Your task to perform on an android device: turn on the 12-hour format for clock Image 0: 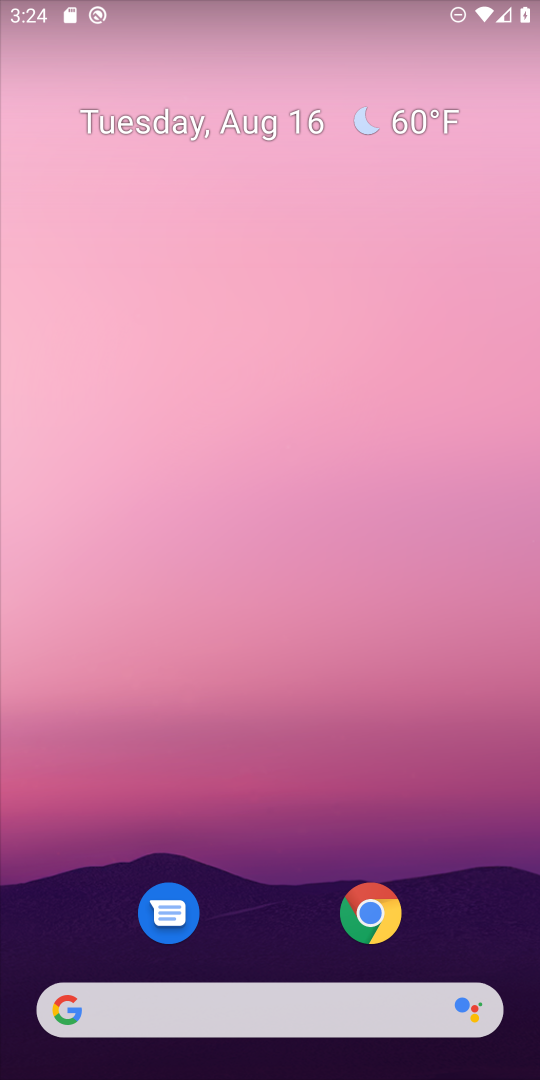
Step 0: drag from (486, 917) to (462, 269)
Your task to perform on an android device: turn on the 12-hour format for clock Image 1: 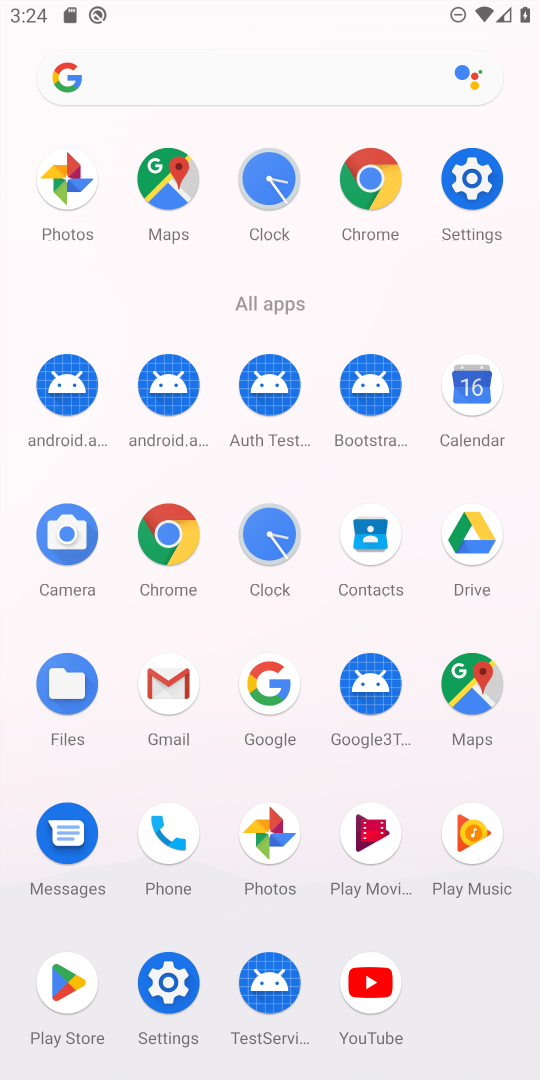
Step 1: click (168, 984)
Your task to perform on an android device: turn on the 12-hour format for clock Image 2: 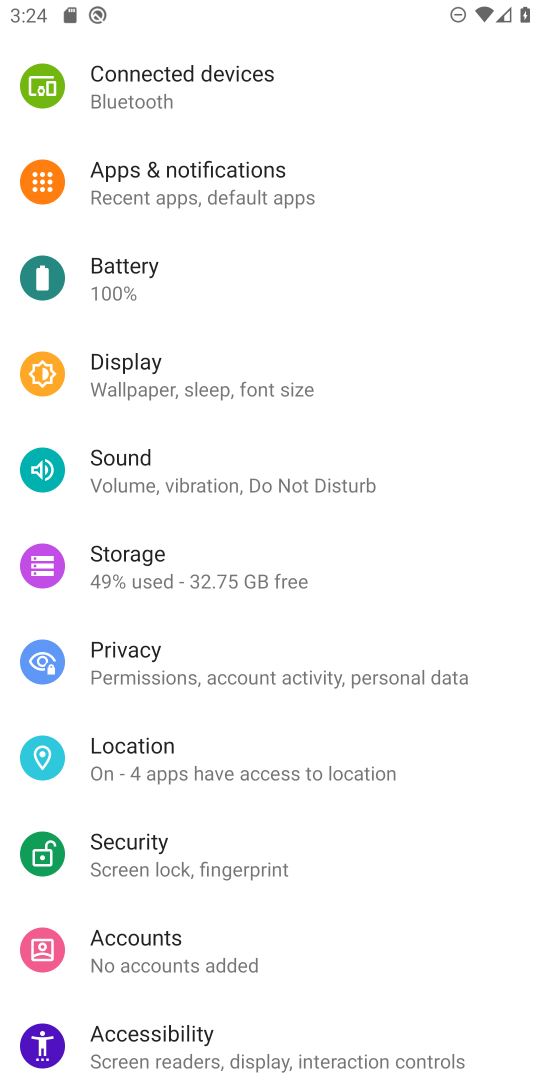
Step 2: press home button
Your task to perform on an android device: turn on the 12-hour format for clock Image 3: 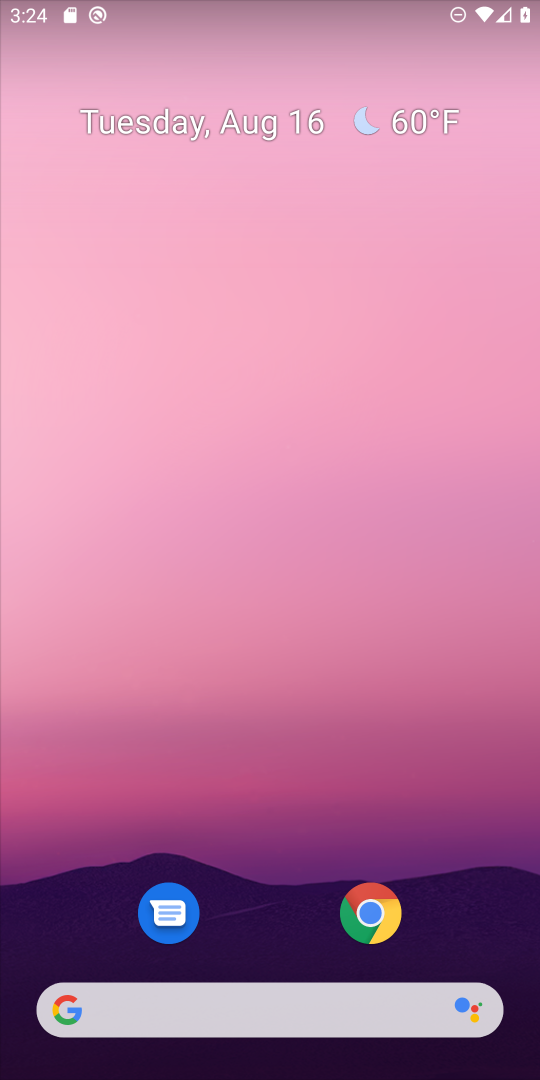
Step 3: drag from (476, 938) to (437, 149)
Your task to perform on an android device: turn on the 12-hour format for clock Image 4: 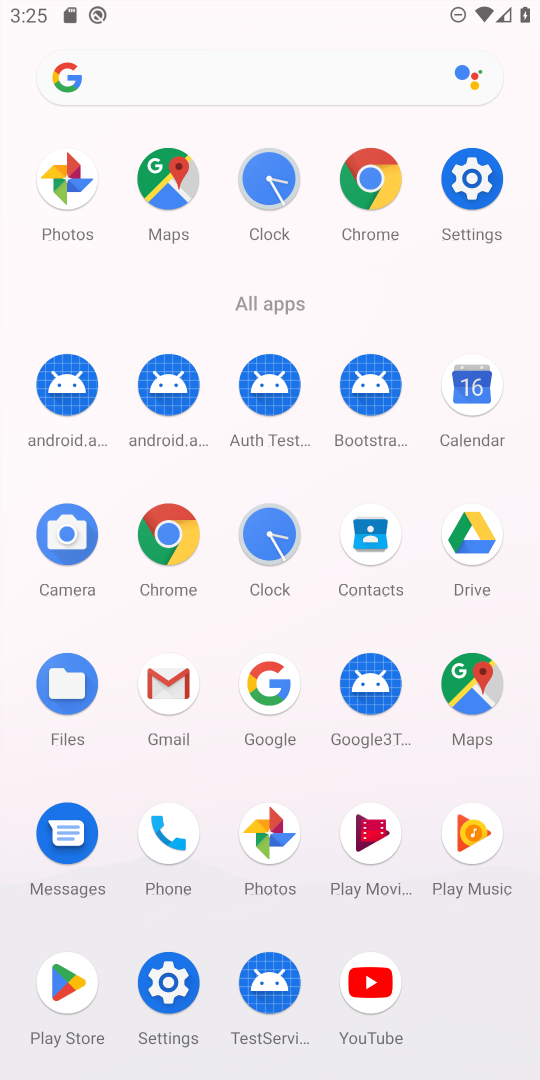
Step 4: click (268, 537)
Your task to perform on an android device: turn on the 12-hour format for clock Image 5: 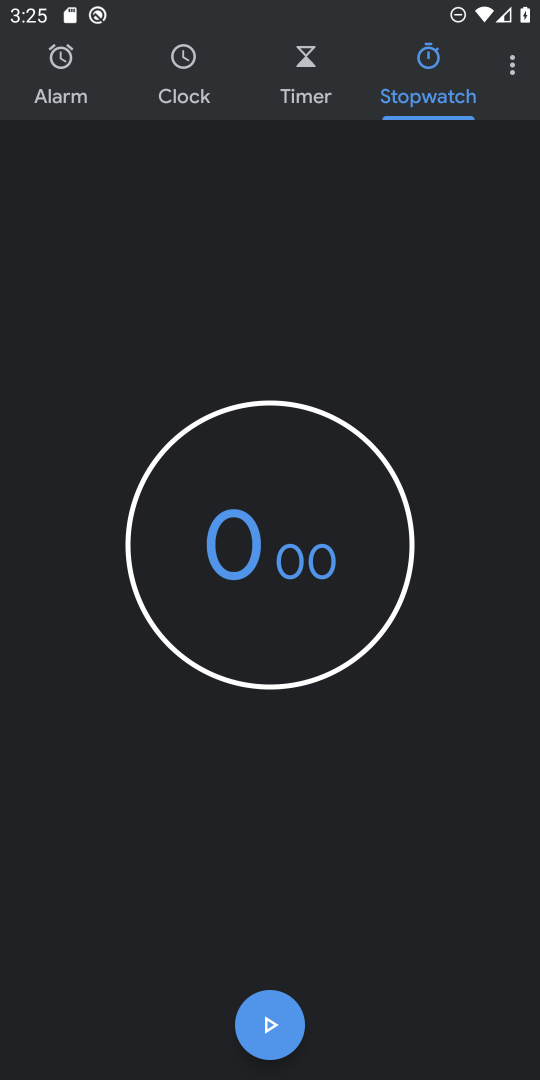
Step 5: click (510, 72)
Your task to perform on an android device: turn on the 12-hour format for clock Image 6: 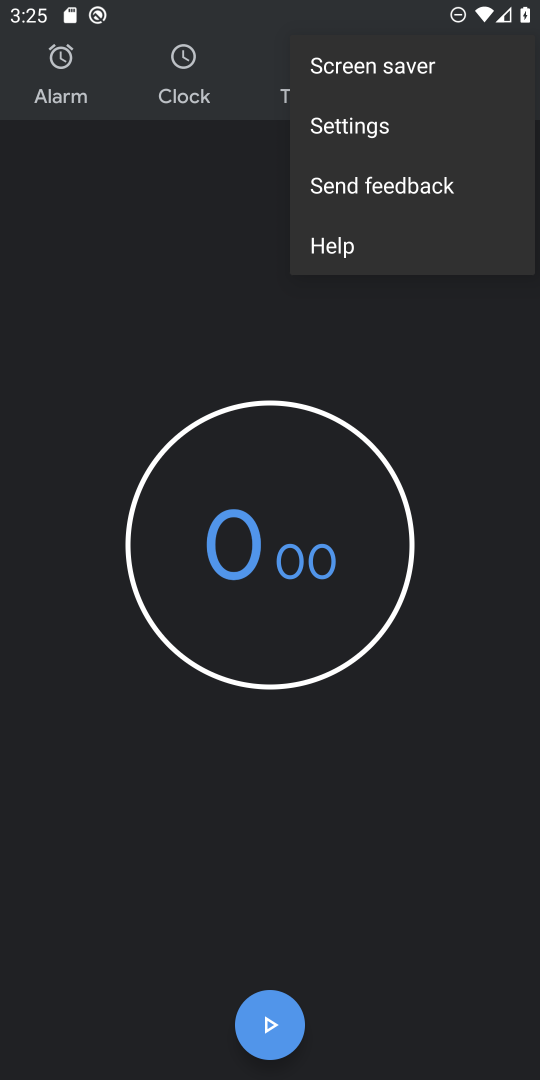
Step 6: click (345, 117)
Your task to perform on an android device: turn on the 12-hour format for clock Image 7: 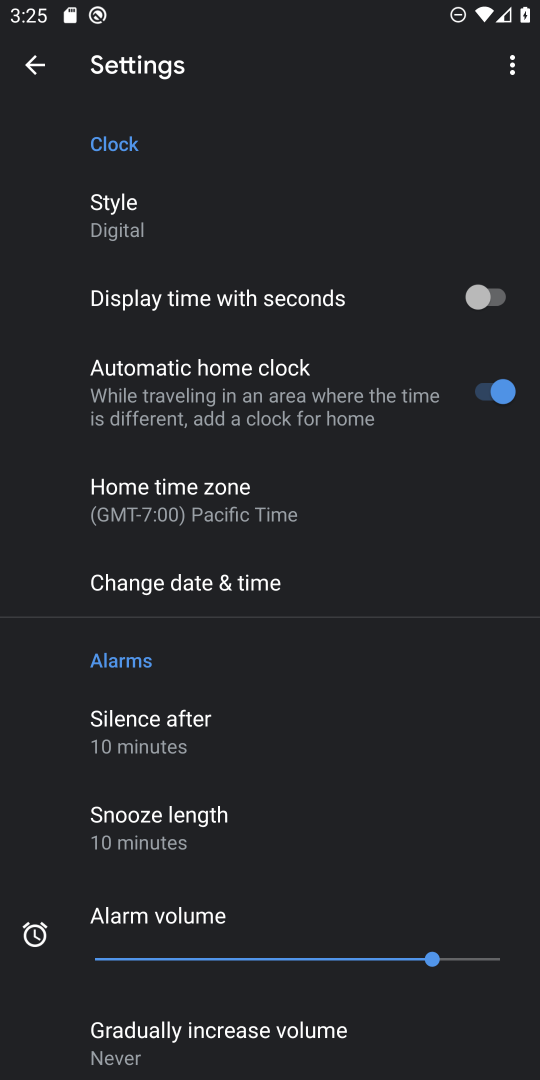
Step 7: click (200, 584)
Your task to perform on an android device: turn on the 12-hour format for clock Image 8: 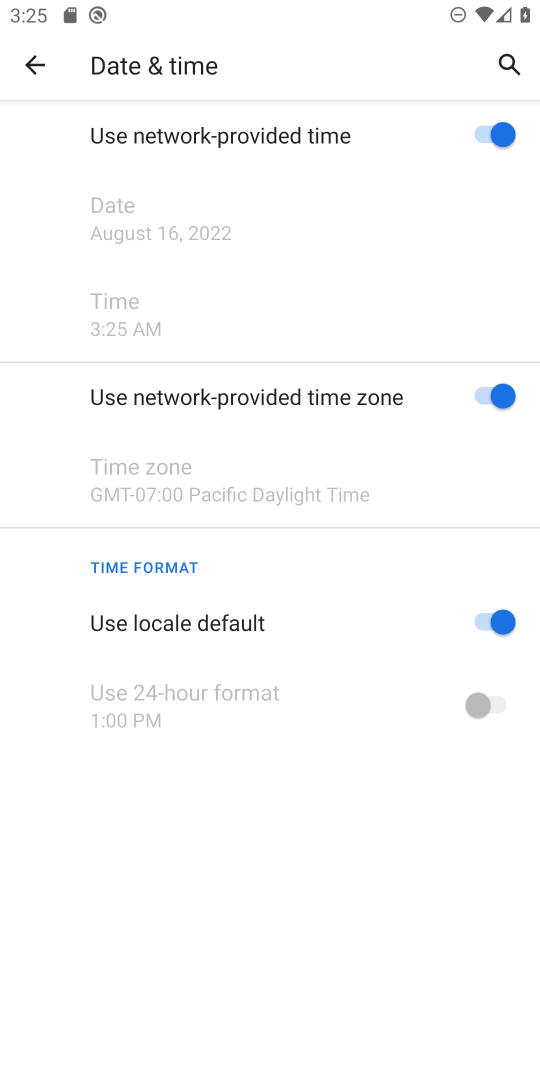
Step 8: task complete